Your task to perform on an android device: Go to Google maps Image 0: 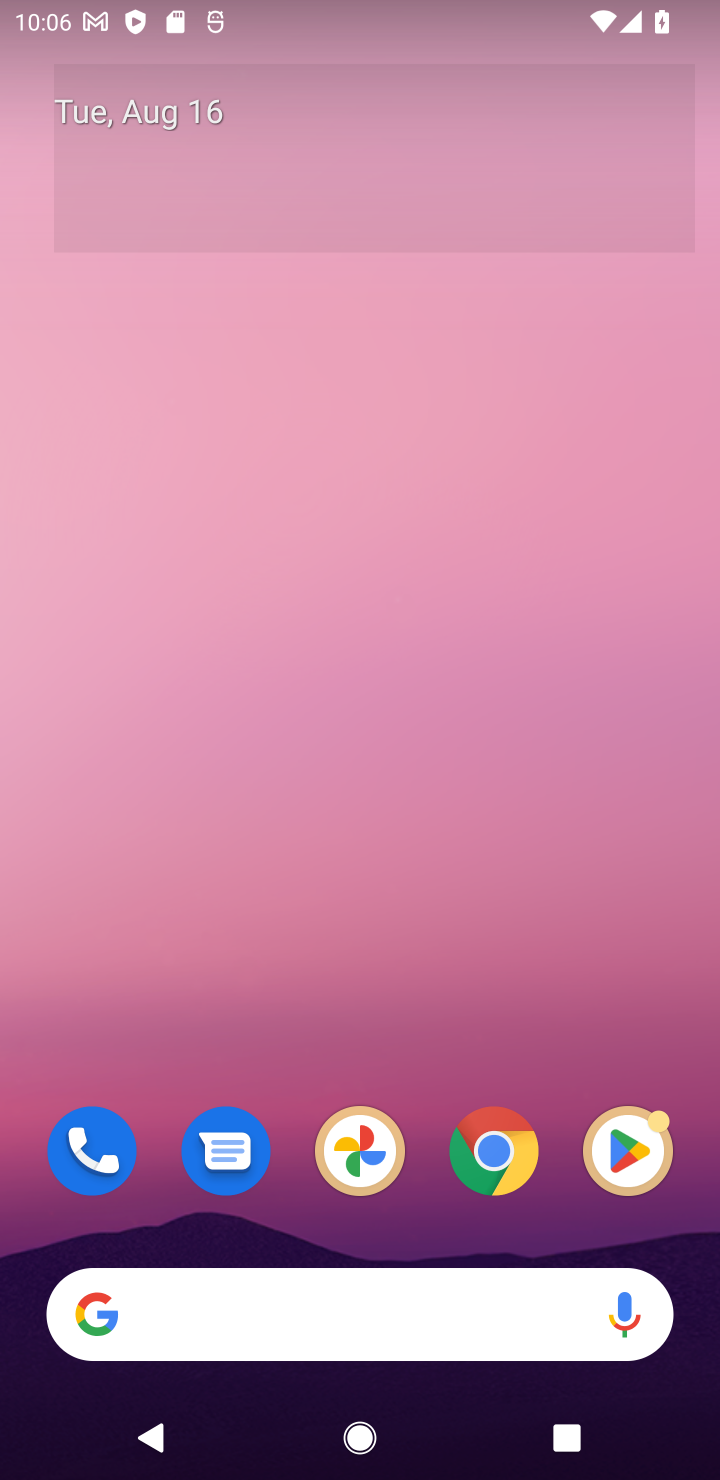
Step 0: drag from (380, 1034) to (226, 51)
Your task to perform on an android device: Go to Google maps Image 1: 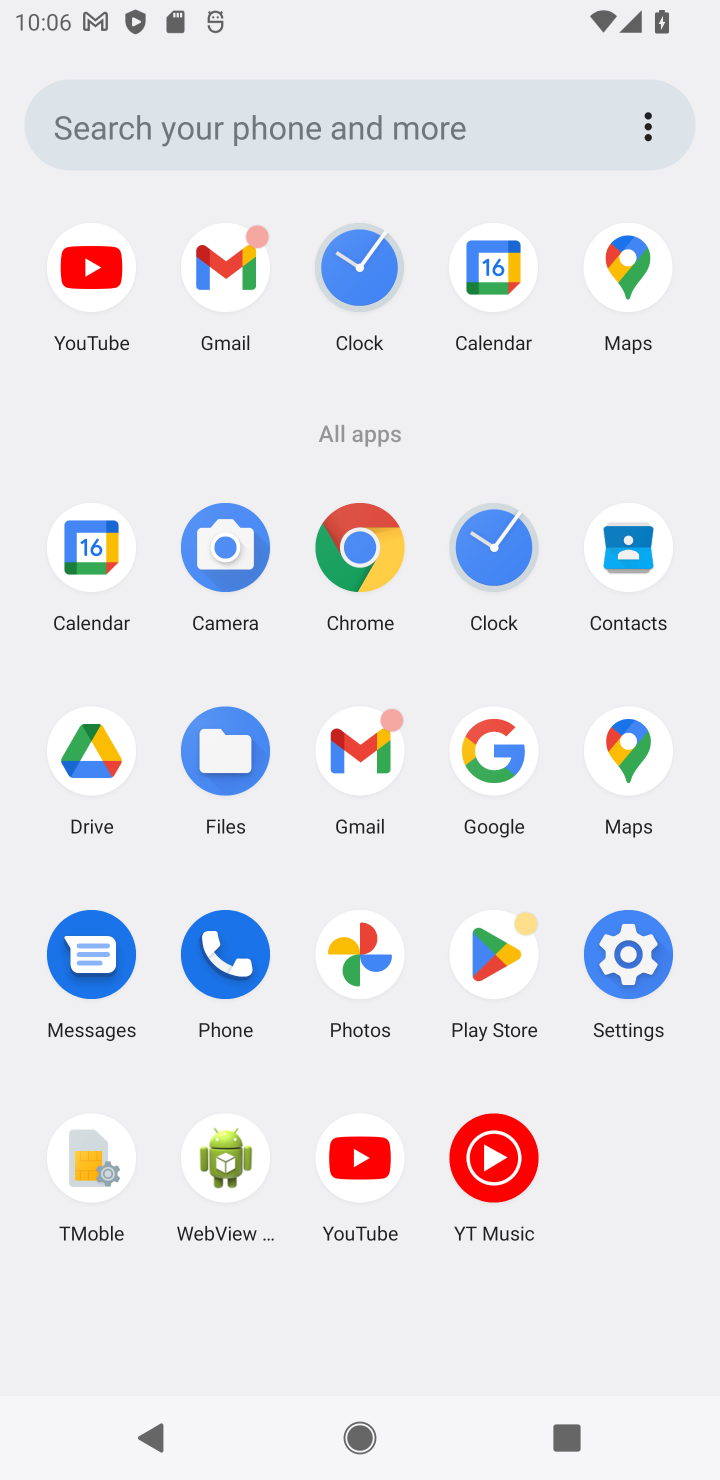
Step 1: click (629, 734)
Your task to perform on an android device: Go to Google maps Image 2: 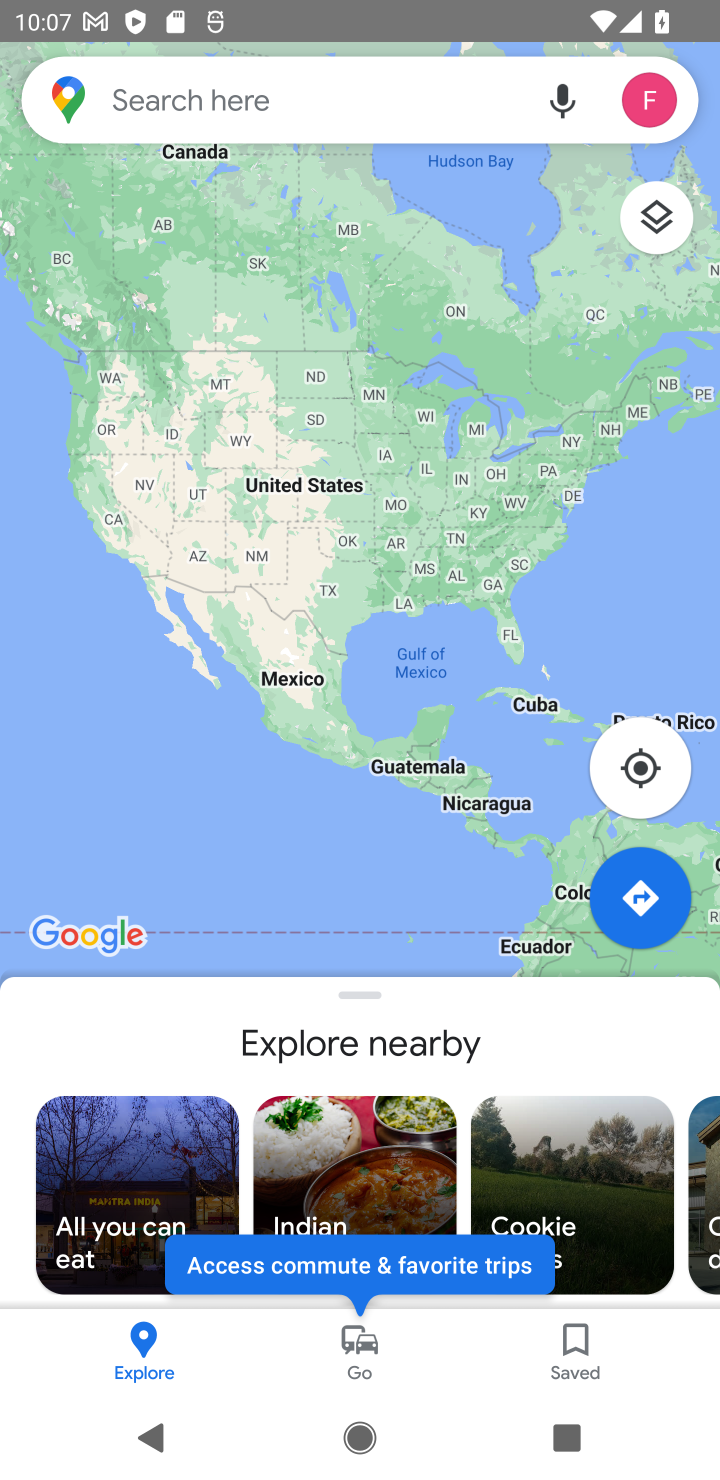
Step 2: task complete